Your task to perform on an android device: Do I have any events tomorrow? Image 0: 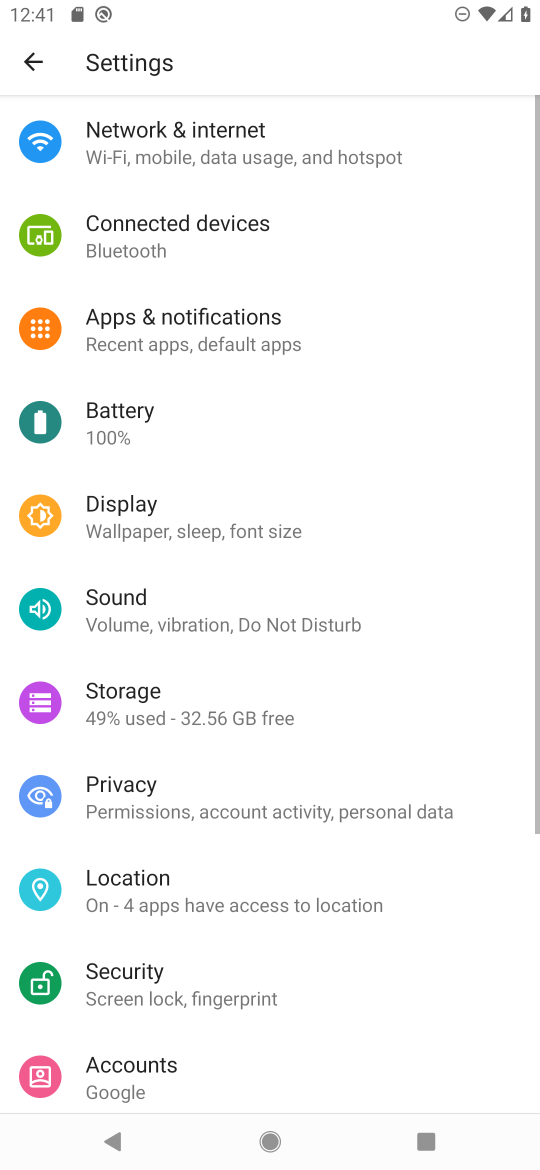
Step 0: press home button
Your task to perform on an android device: Do I have any events tomorrow? Image 1: 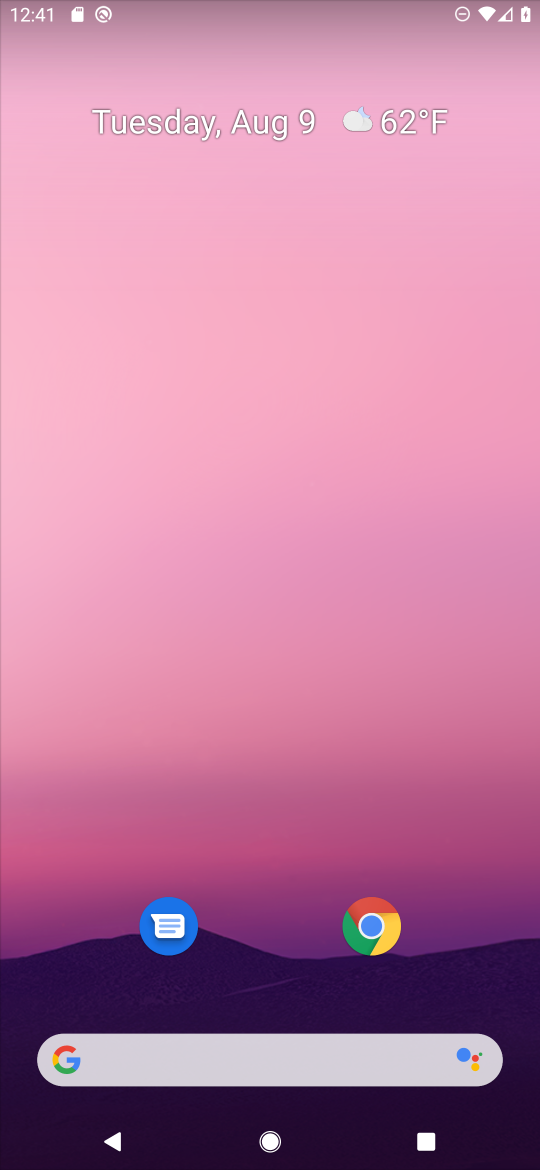
Step 1: drag from (0, 0) to (113, 308)
Your task to perform on an android device: Do I have any events tomorrow? Image 2: 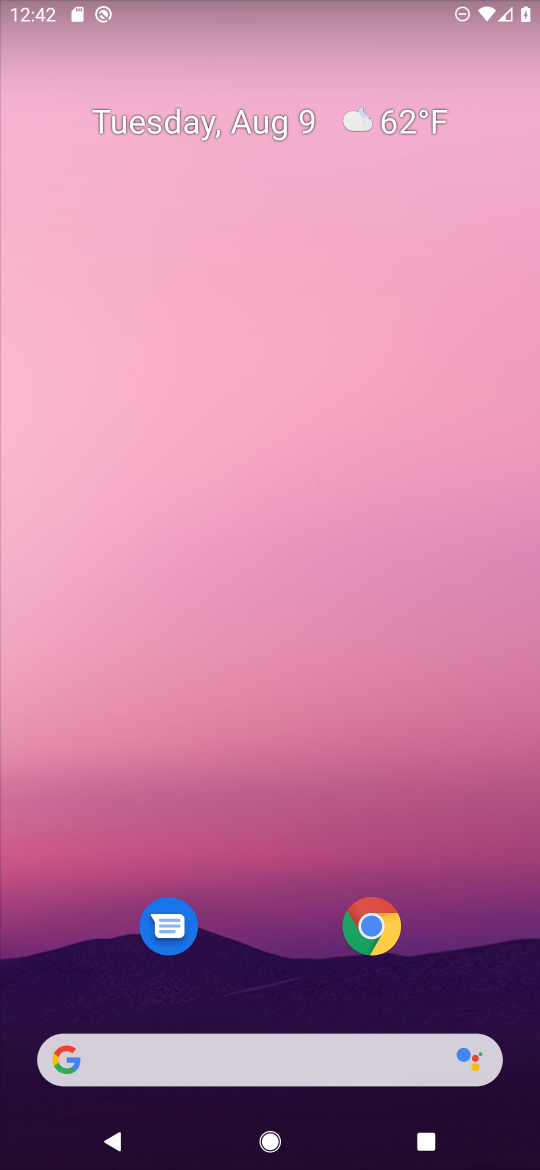
Step 2: drag from (48, 994) to (345, 134)
Your task to perform on an android device: Do I have any events tomorrow? Image 3: 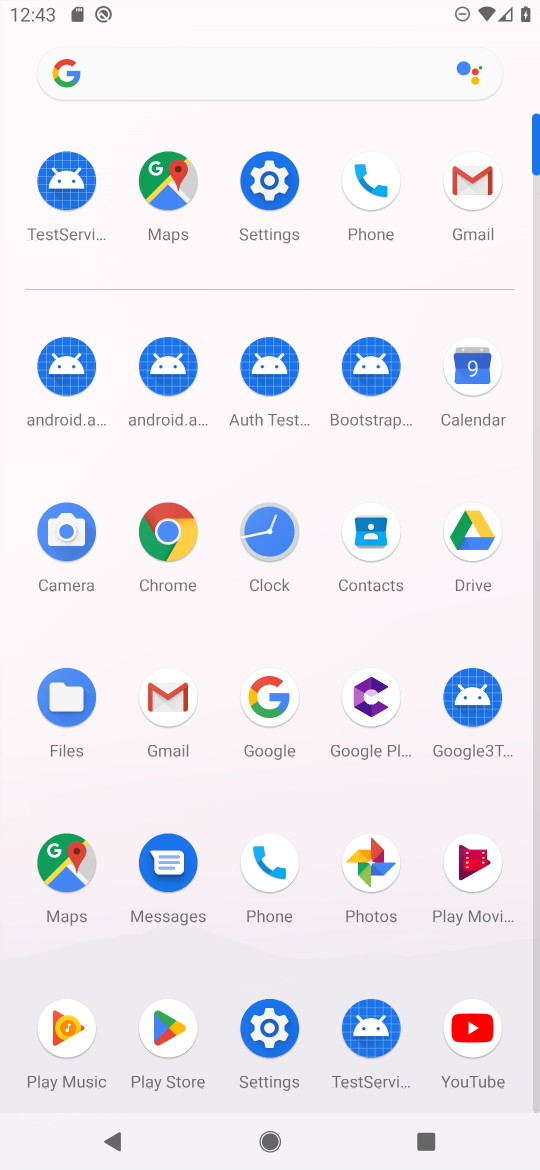
Step 3: click (474, 379)
Your task to perform on an android device: Do I have any events tomorrow? Image 4: 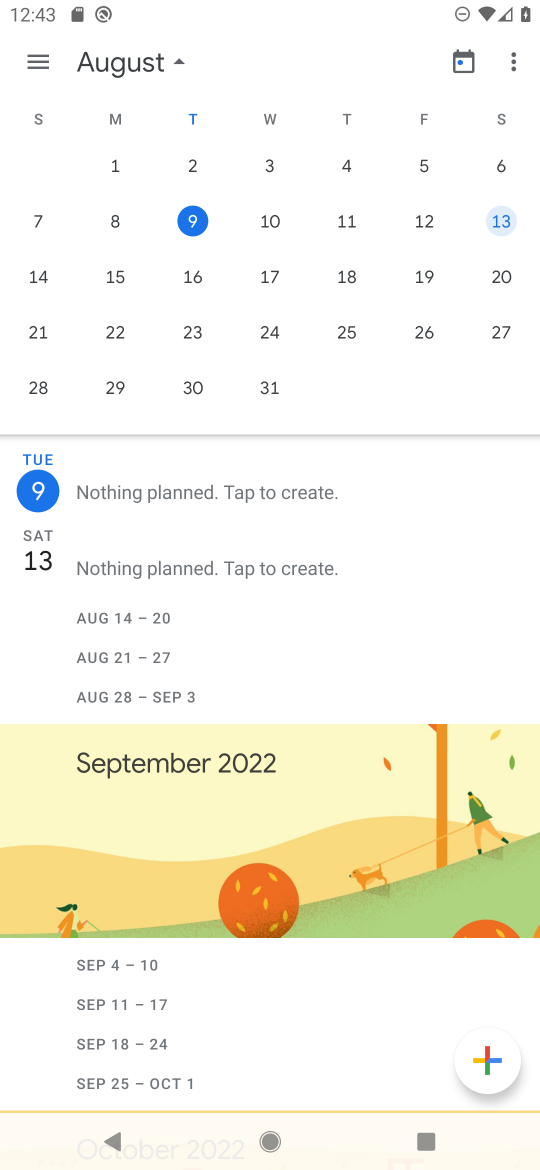
Step 4: click (269, 223)
Your task to perform on an android device: Do I have any events tomorrow? Image 5: 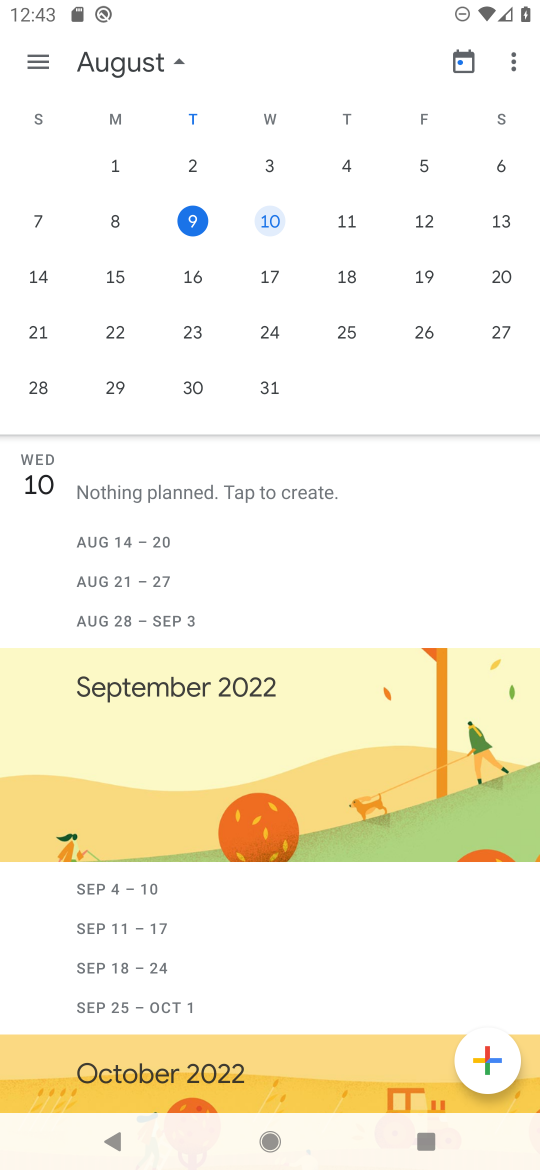
Step 5: task complete